Your task to perform on an android device: Open battery settings Image 0: 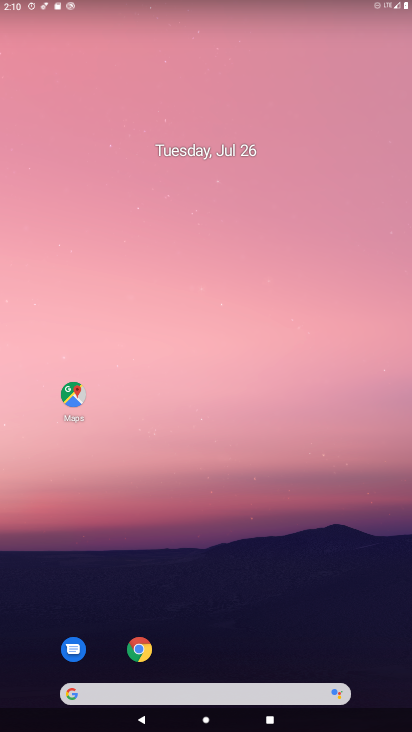
Step 0: drag from (280, 604) to (251, 2)
Your task to perform on an android device: Open battery settings Image 1: 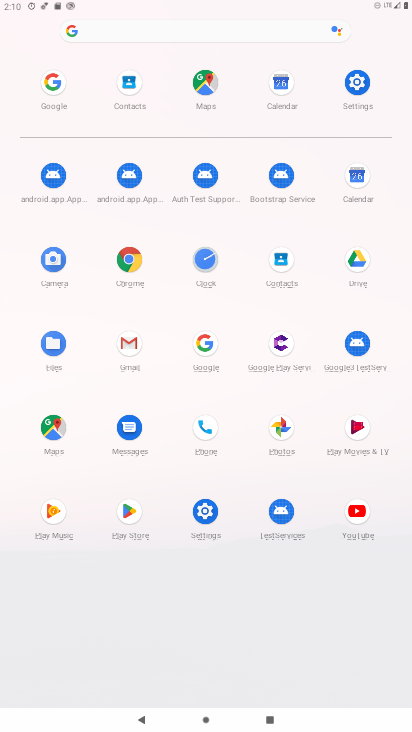
Step 1: click (195, 505)
Your task to perform on an android device: Open battery settings Image 2: 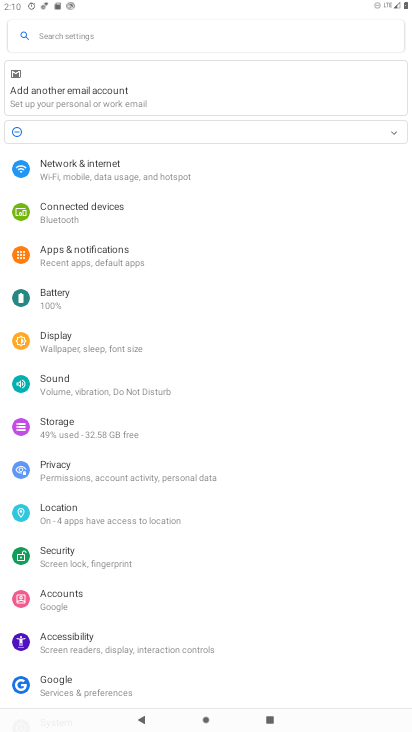
Step 2: click (76, 303)
Your task to perform on an android device: Open battery settings Image 3: 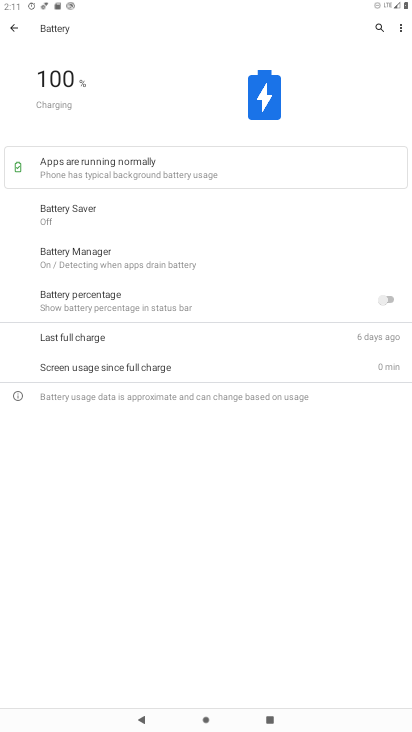
Step 3: task complete